Your task to perform on an android device: change alarm snooze length Image 0: 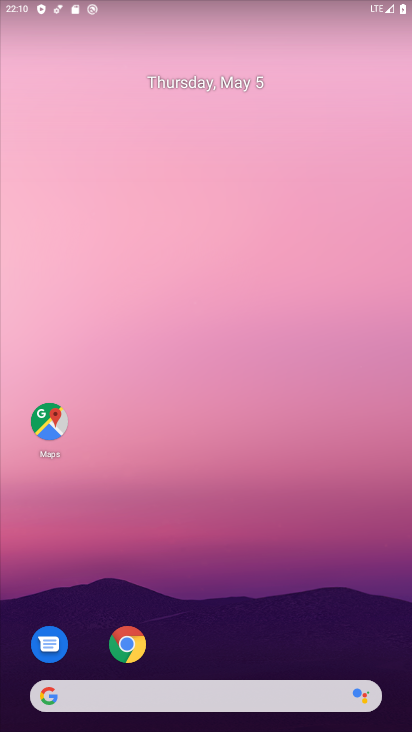
Step 0: drag from (228, 673) to (195, 224)
Your task to perform on an android device: change alarm snooze length Image 1: 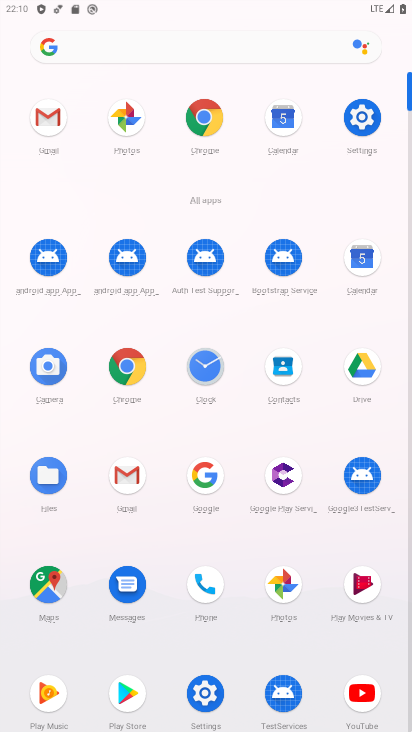
Step 1: click (205, 354)
Your task to perform on an android device: change alarm snooze length Image 2: 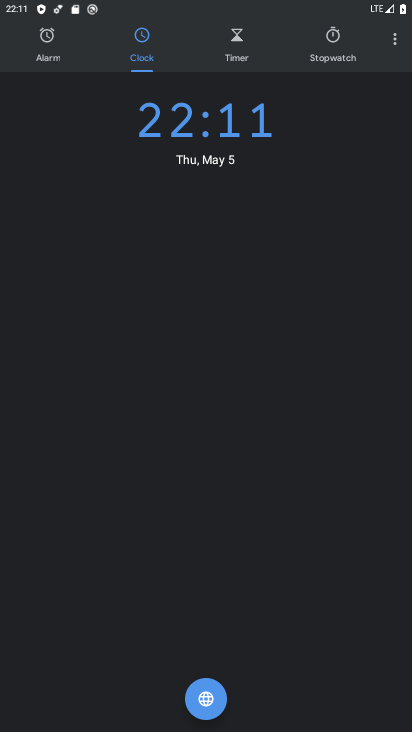
Step 2: click (398, 43)
Your task to perform on an android device: change alarm snooze length Image 3: 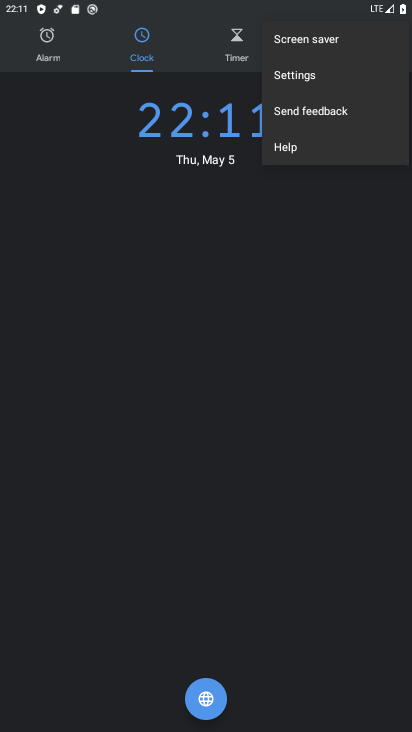
Step 3: click (333, 79)
Your task to perform on an android device: change alarm snooze length Image 4: 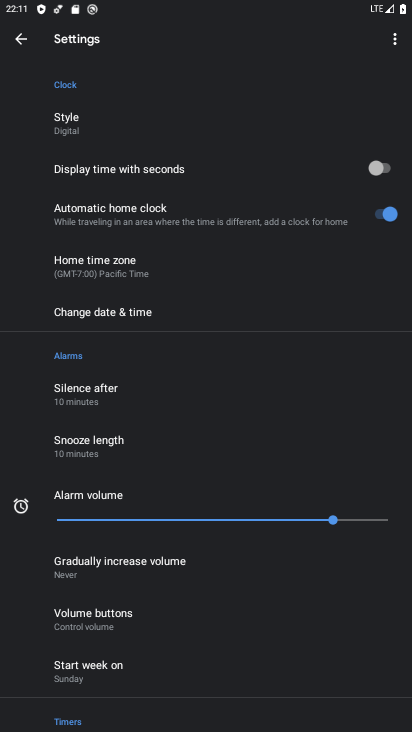
Step 4: click (118, 434)
Your task to perform on an android device: change alarm snooze length Image 5: 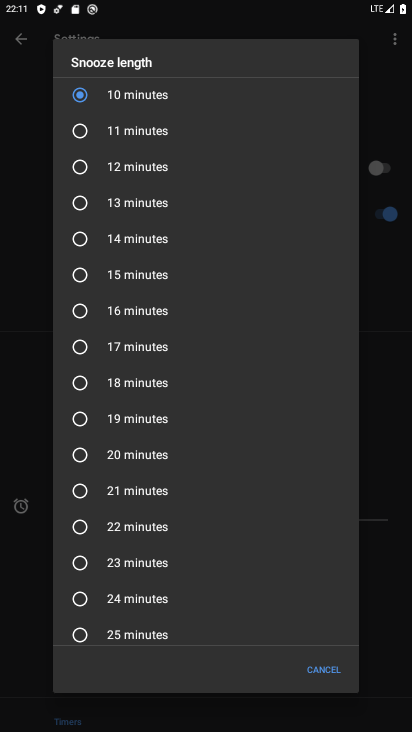
Step 5: click (77, 124)
Your task to perform on an android device: change alarm snooze length Image 6: 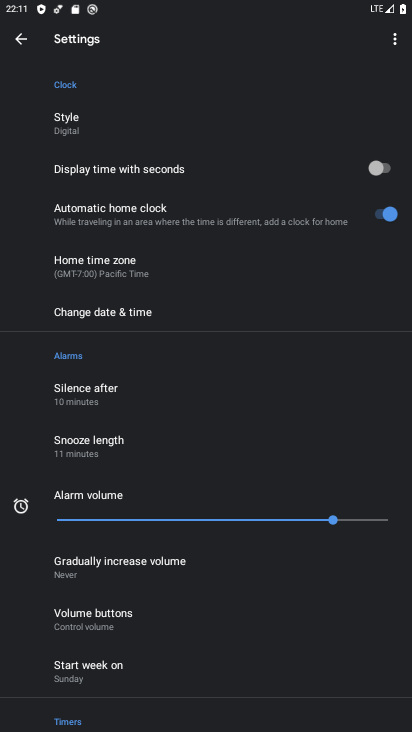
Step 6: task complete